Your task to perform on an android device: Open CNN.com Image 0: 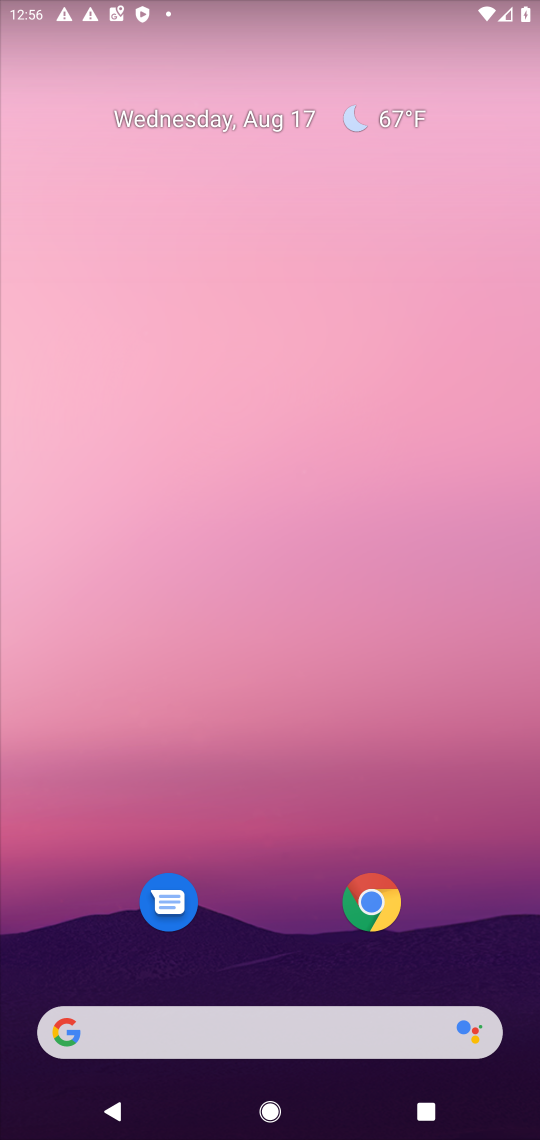
Step 0: click (364, 897)
Your task to perform on an android device: Open CNN.com Image 1: 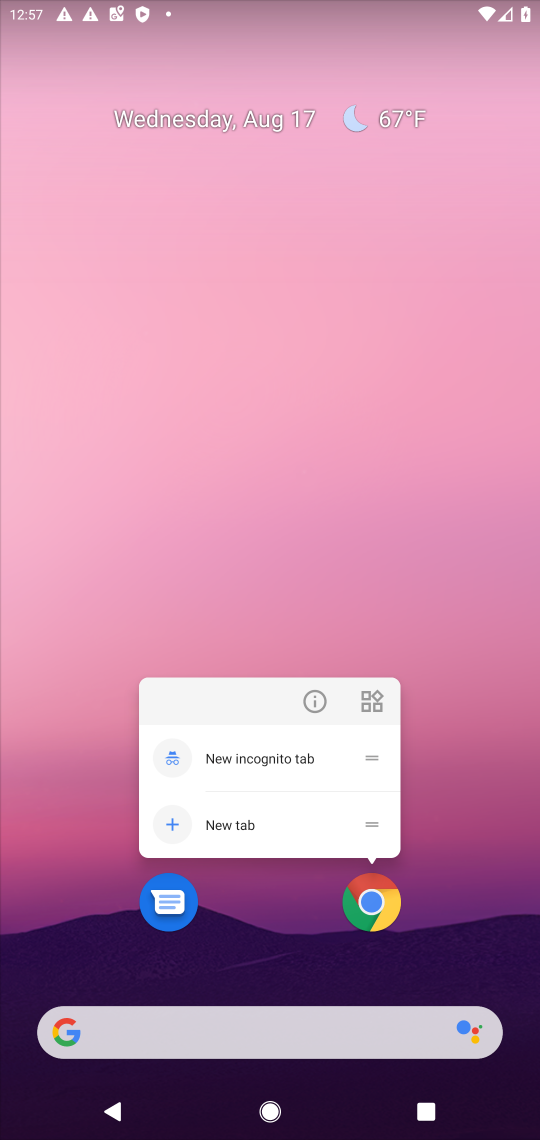
Step 1: click (370, 899)
Your task to perform on an android device: Open CNN.com Image 2: 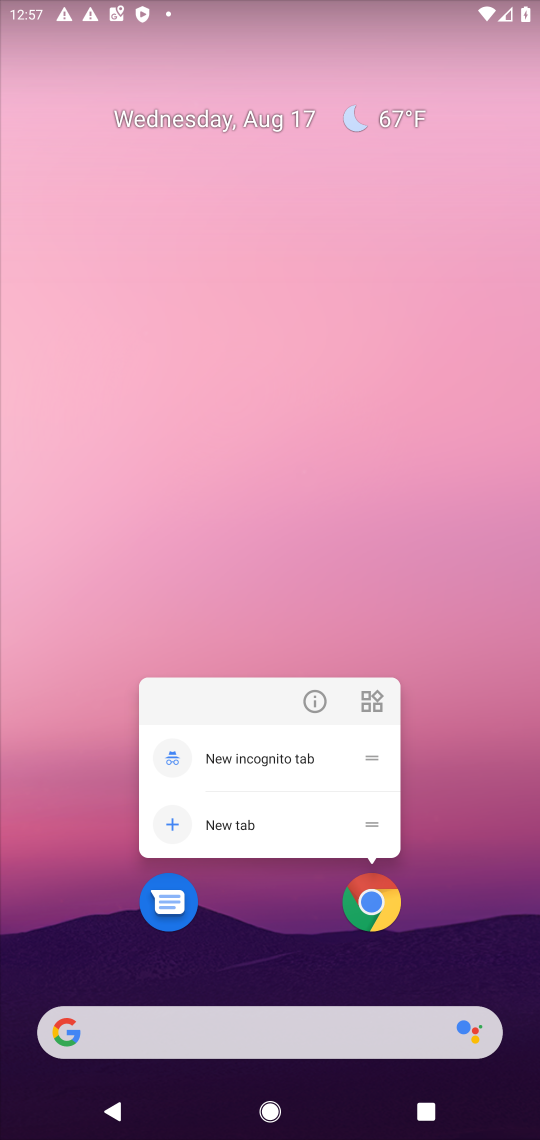
Step 2: click (394, 913)
Your task to perform on an android device: Open CNN.com Image 3: 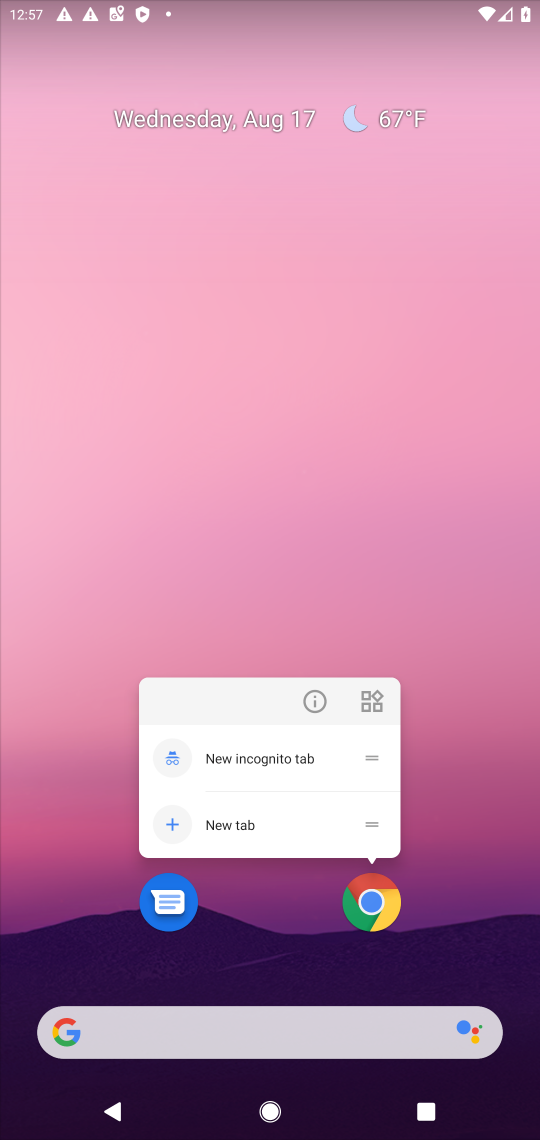
Step 3: click (388, 884)
Your task to perform on an android device: Open CNN.com Image 4: 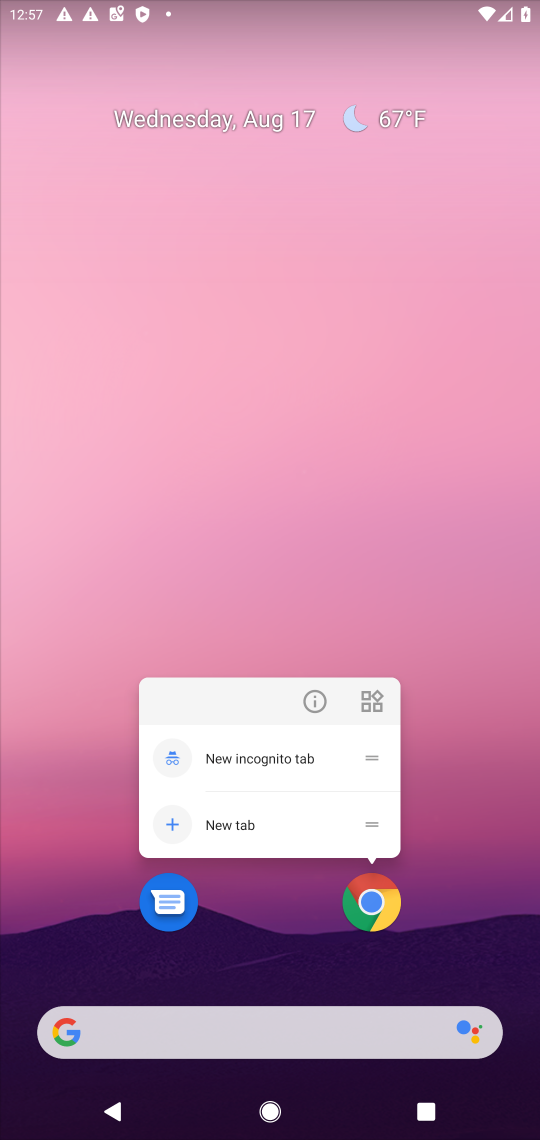
Step 4: click (351, 900)
Your task to perform on an android device: Open CNN.com Image 5: 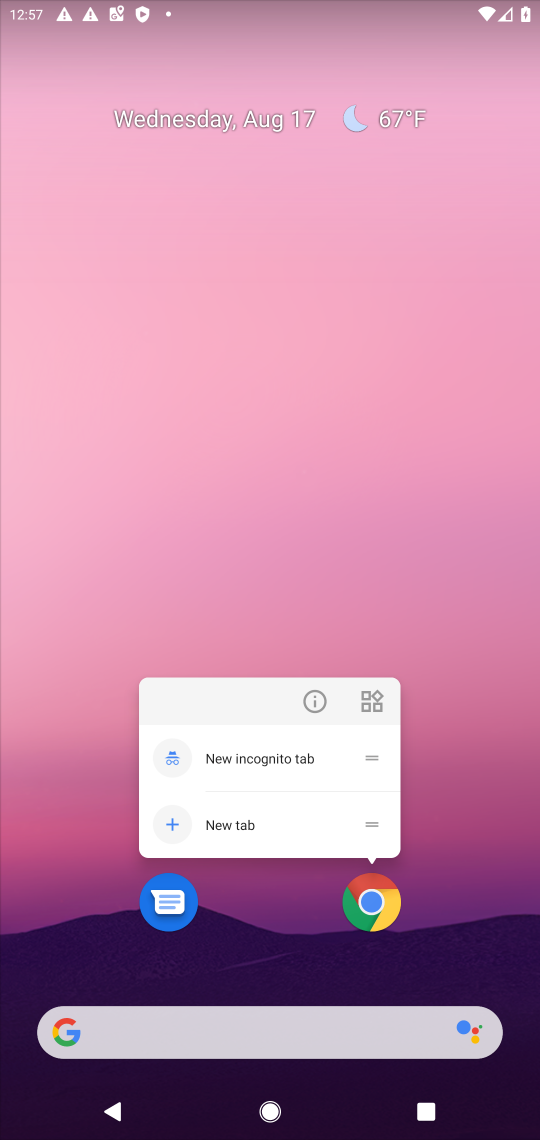
Step 5: click (351, 895)
Your task to perform on an android device: Open CNN.com Image 6: 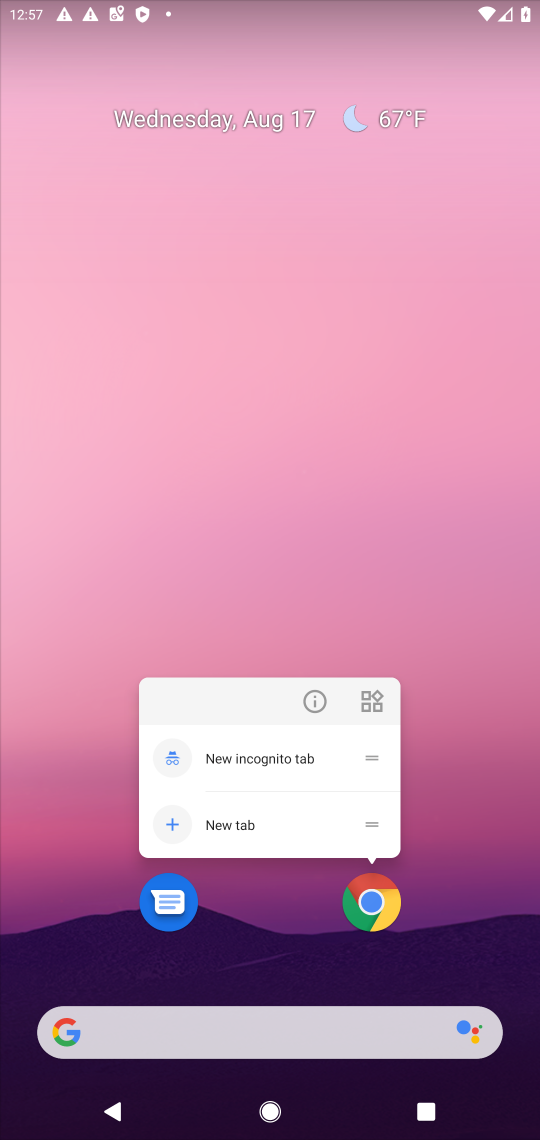
Step 6: click (354, 897)
Your task to perform on an android device: Open CNN.com Image 7: 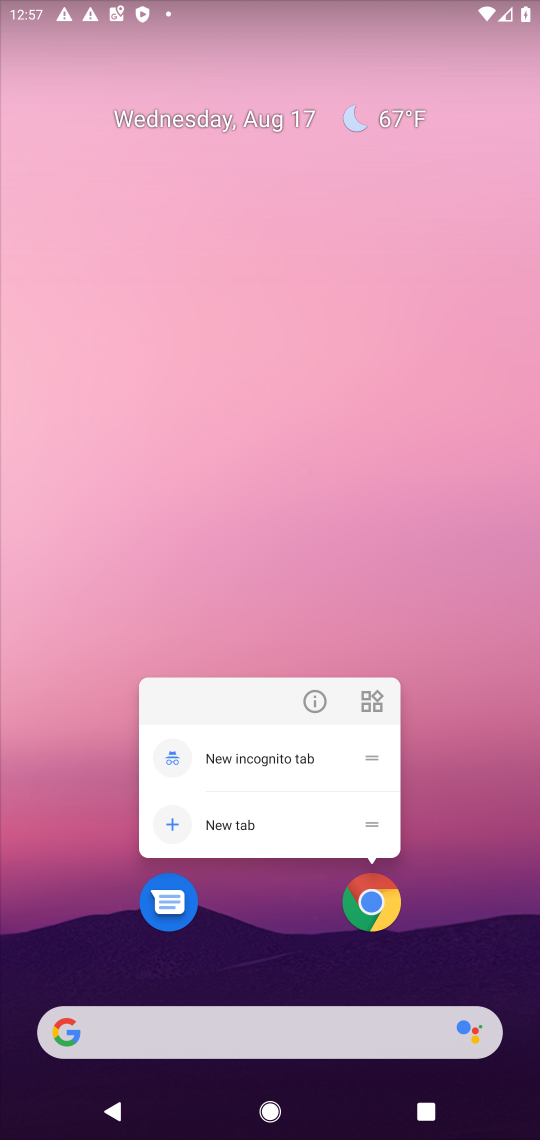
Step 7: click (381, 924)
Your task to perform on an android device: Open CNN.com Image 8: 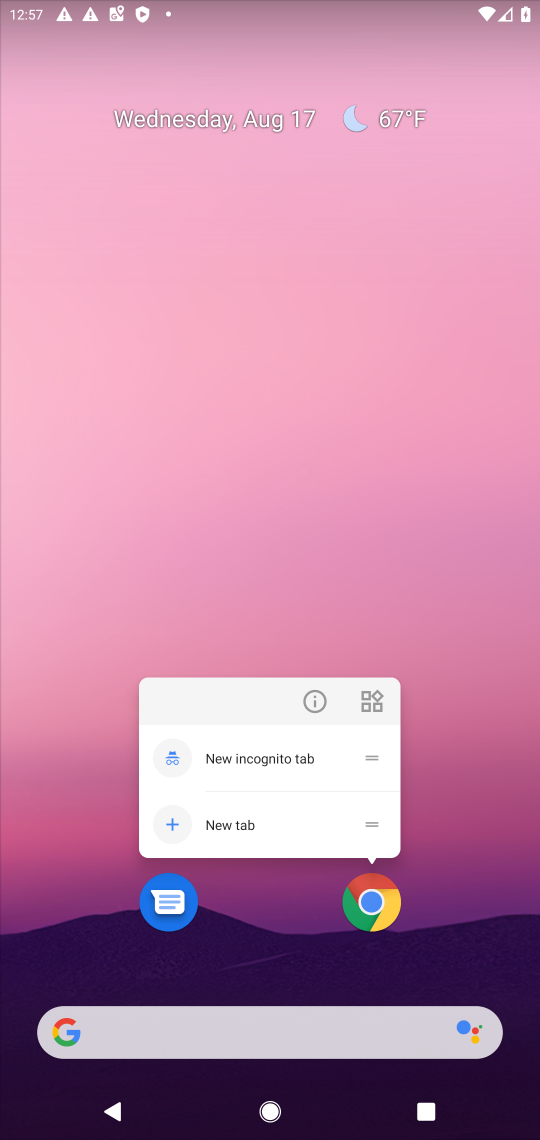
Step 8: drag from (282, 736) to (321, 134)
Your task to perform on an android device: Open CNN.com Image 9: 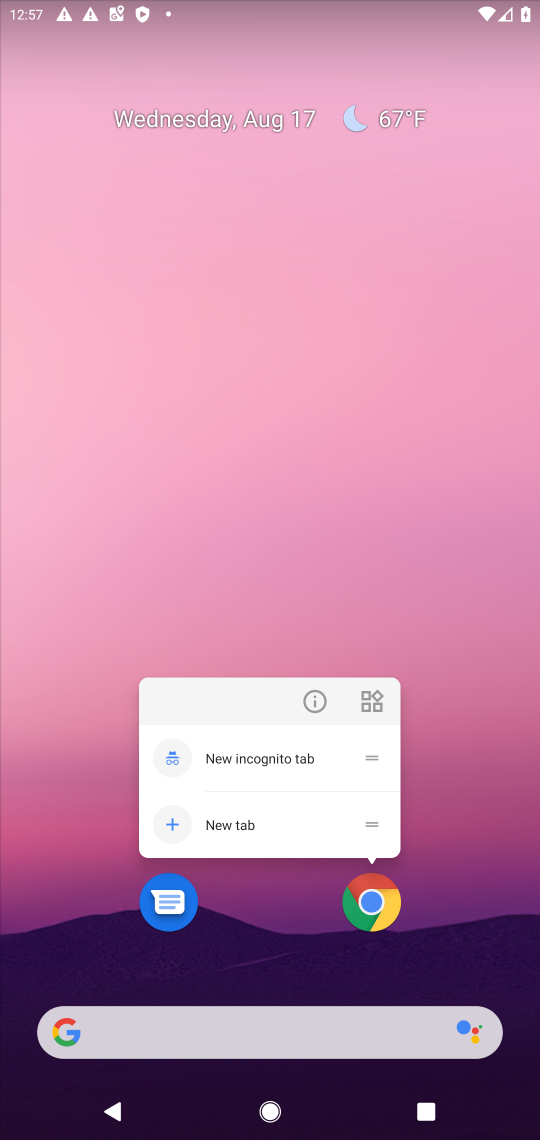
Step 9: click (373, 492)
Your task to perform on an android device: Open CNN.com Image 10: 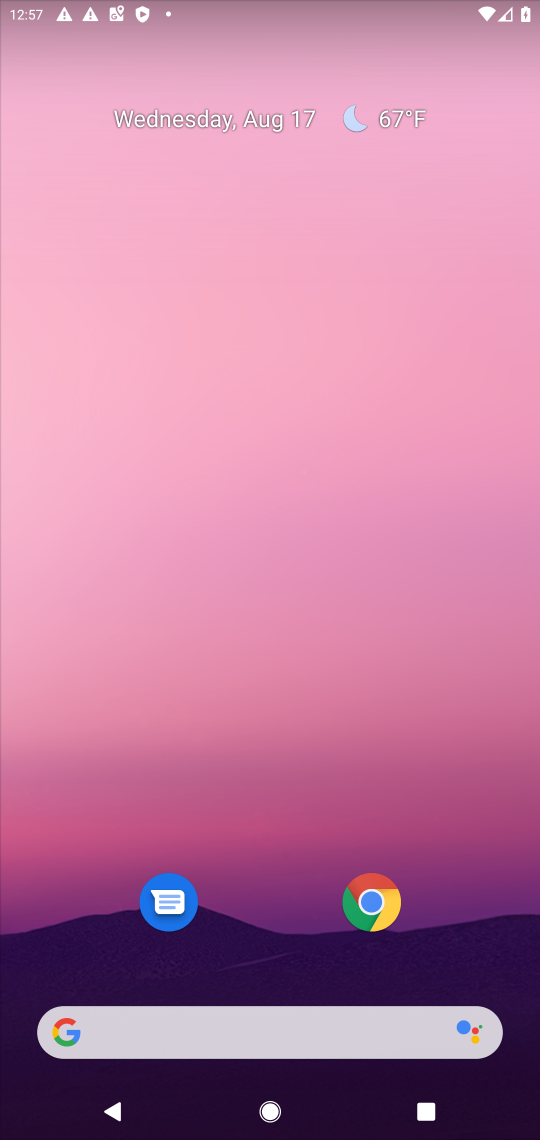
Step 10: drag from (253, 942) to (27, 316)
Your task to perform on an android device: Open CNN.com Image 11: 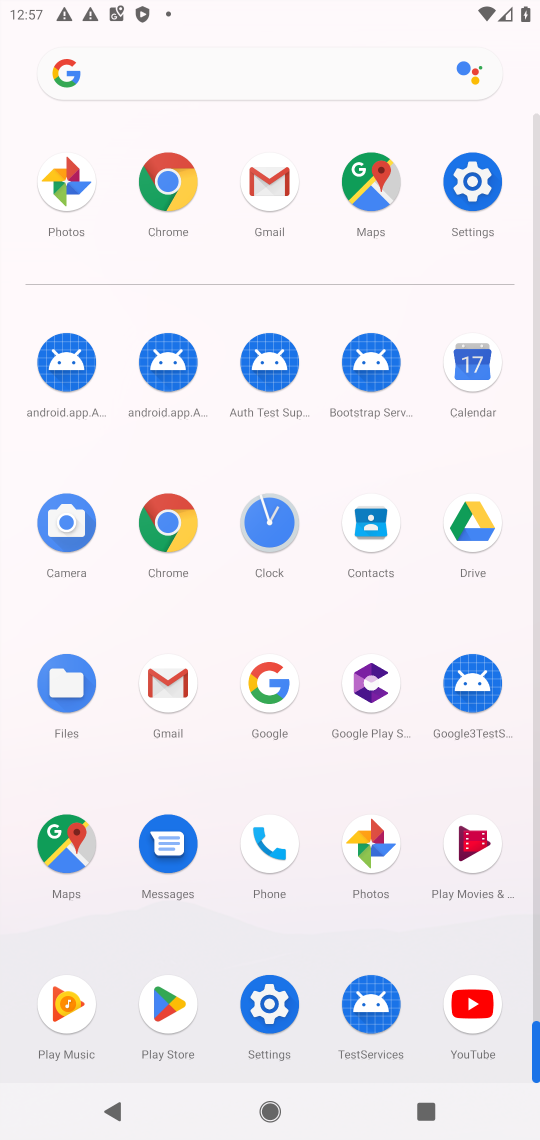
Step 11: click (166, 514)
Your task to perform on an android device: Open CNN.com Image 12: 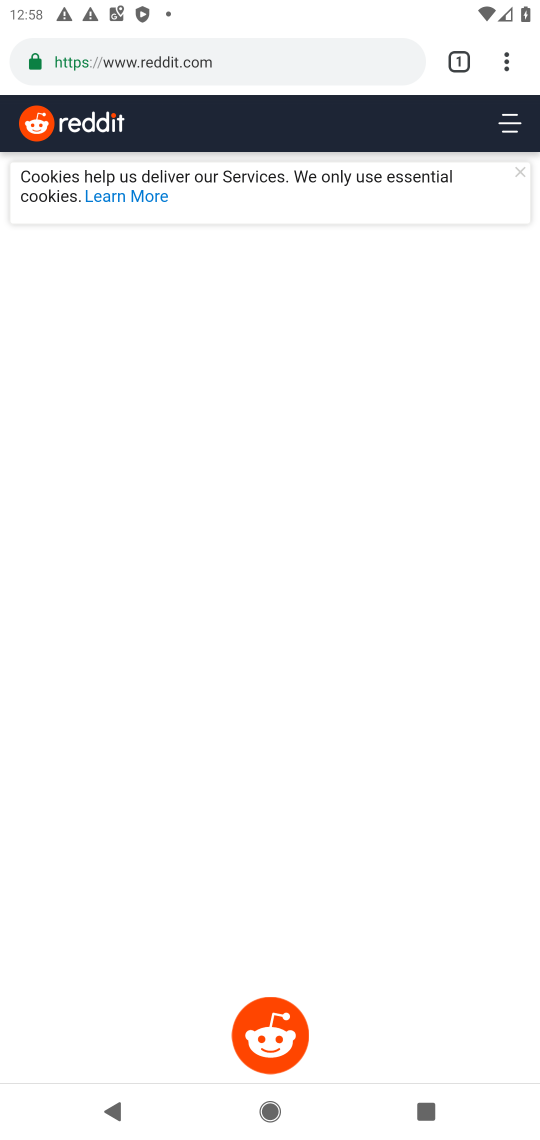
Step 12: click (303, 71)
Your task to perform on an android device: Open CNN.com Image 13: 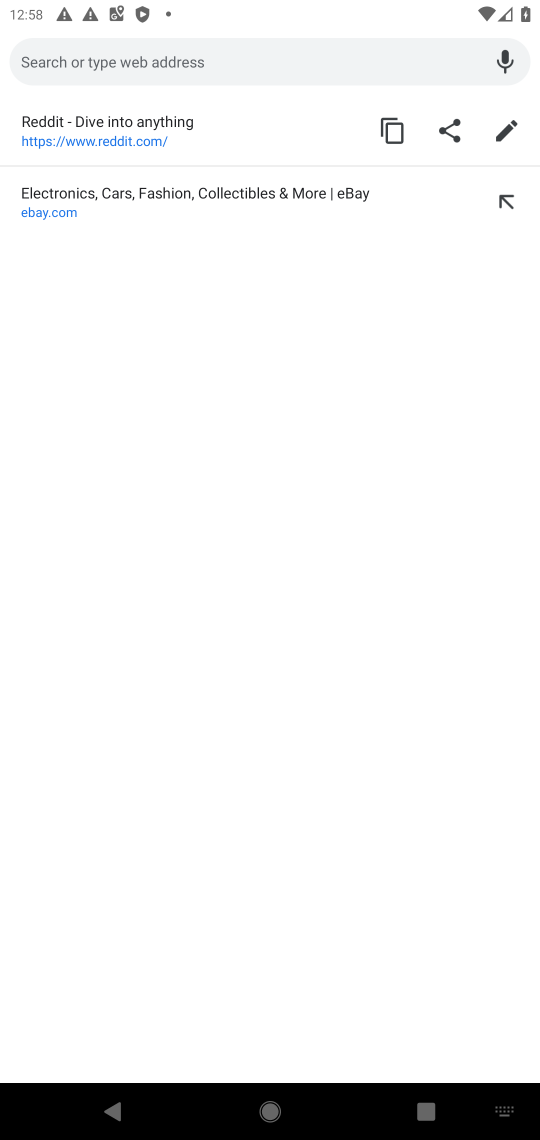
Step 13: type "CNN.com"
Your task to perform on an android device: Open CNN.com Image 14: 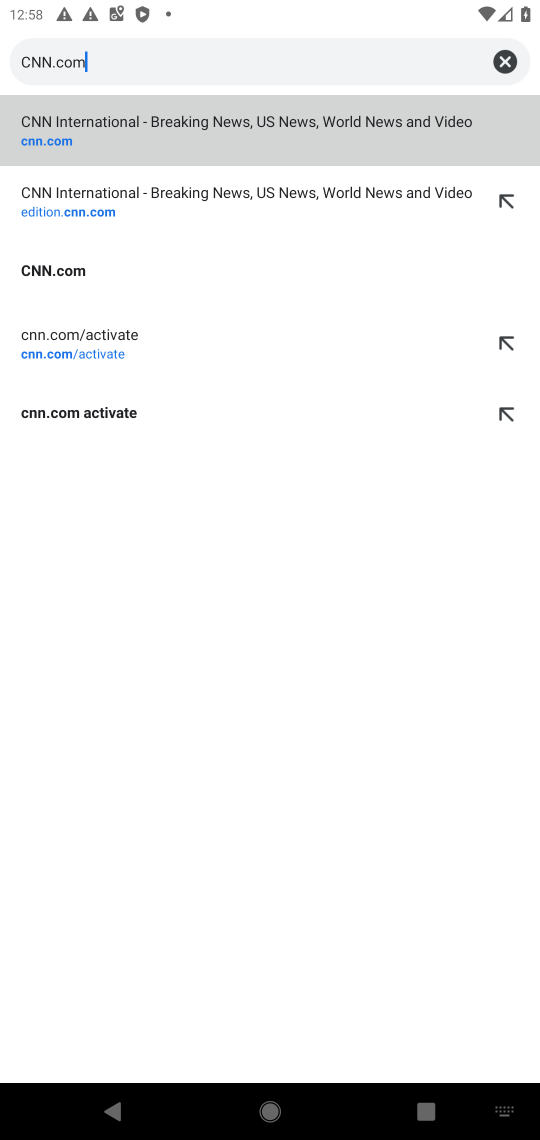
Step 14: click (134, 141)
Your task to perform on an android device: Open CNN.com Image 15: 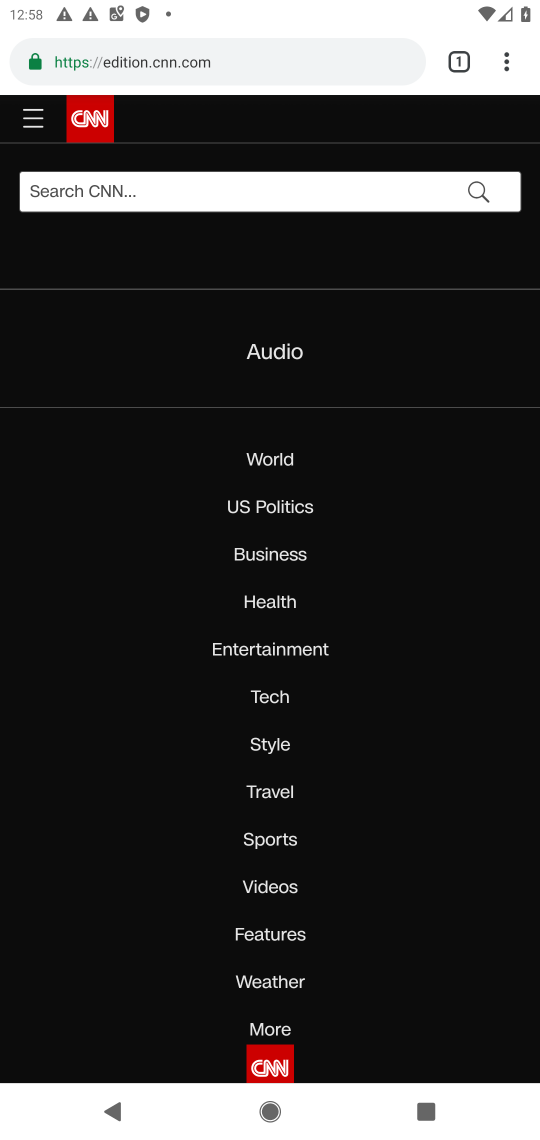
Step 15: task complete